Your task to perform on an android device: toggle notifications settings in the gmail app Image 0: 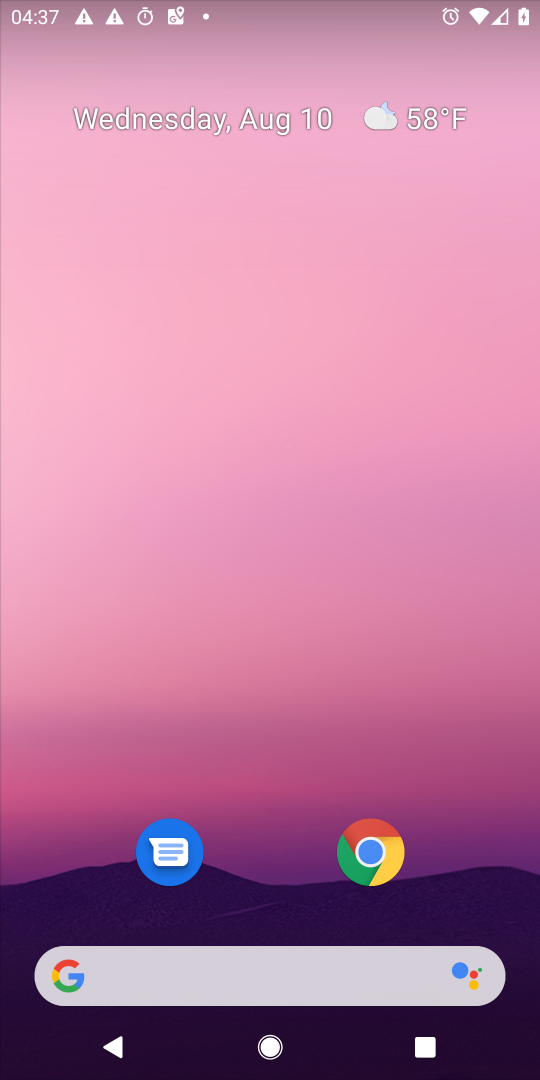
Step 0: drag from (247, 898) to (156, 493)
Your task to perform on an android device: toggle notifications settings in the gmail app Image 1: 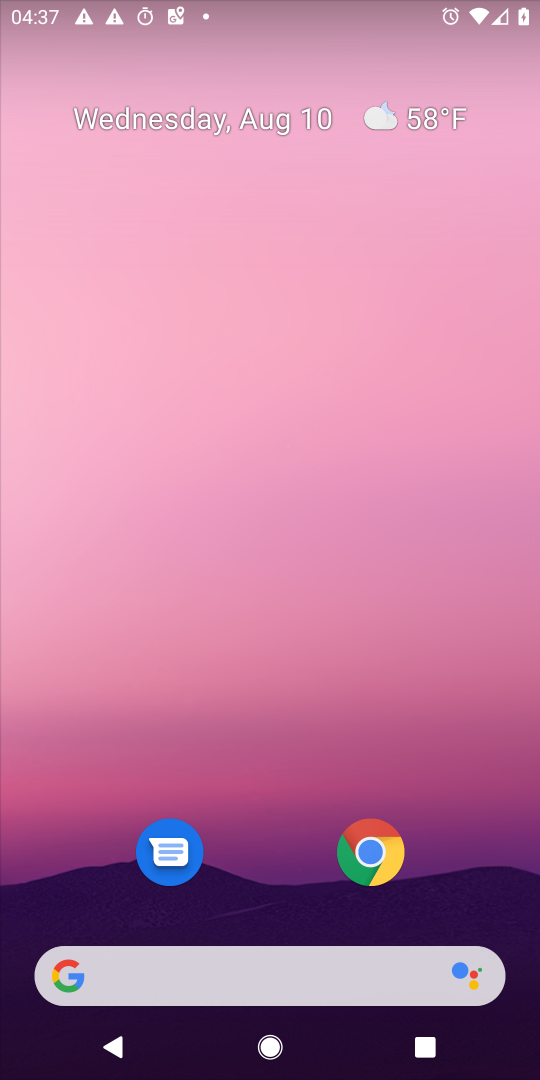
Step 1: drag from (277, 899) to (26, 0)
Your task to perform on an android device: toggle notifications settings in the gmail app Image 2: 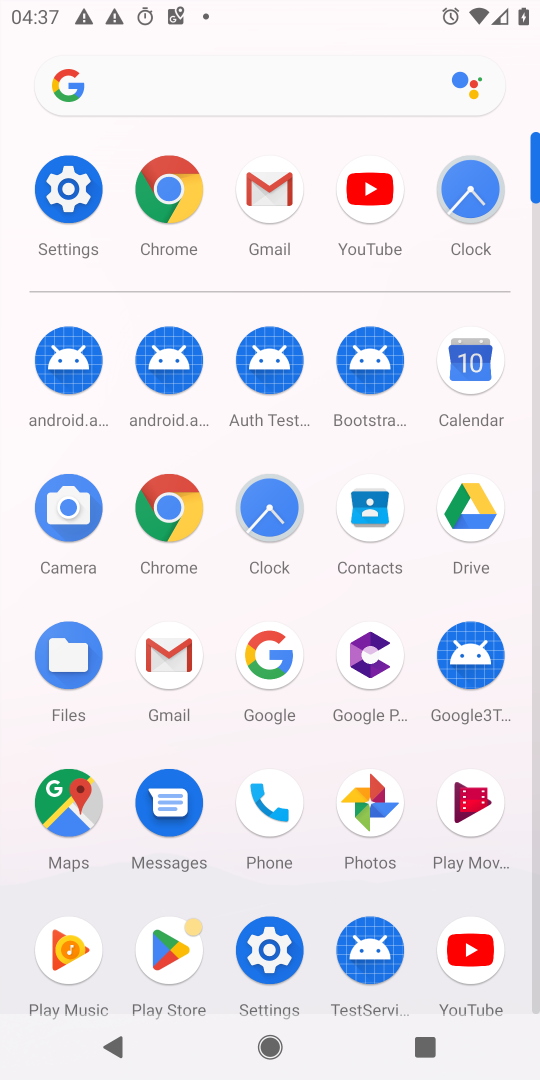
Step 2: click (176, 661)
Your task to perform on an android device: toggle notifications settings in the gmail app Image 3: 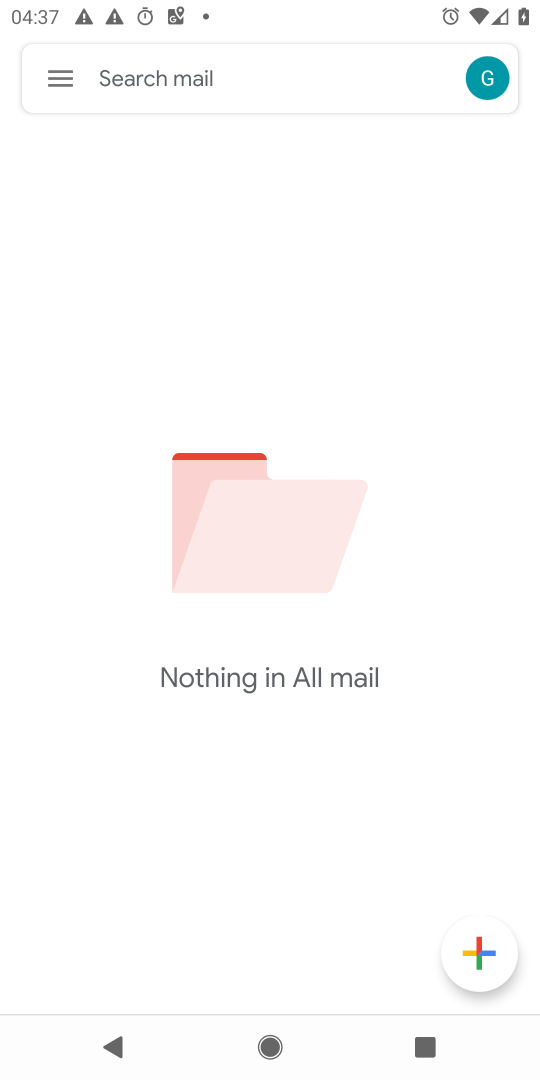
Step 3: click (39, 63)
Your task to perform on an android device: toggle notifications settings in the gmail app Image 4: 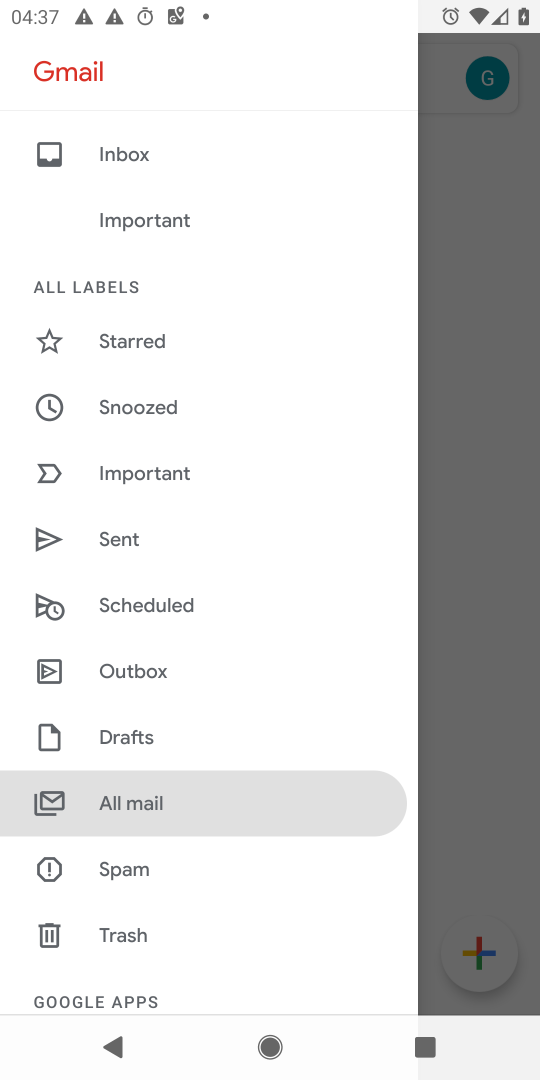
Step 4: drag from (214, 927) to (73, 31)
Your task to perform on an android device: toggle notifications settings in the gmail app Image 5: 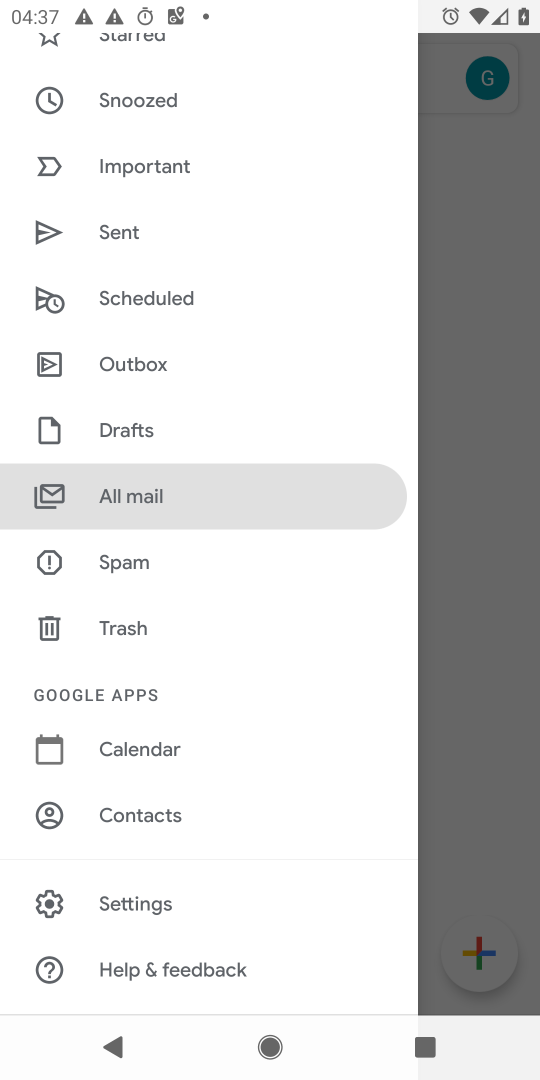
Step 5: click (148, 904)
Your task to perform on an android device: toggle notifications settings in the gmail app Image 6: 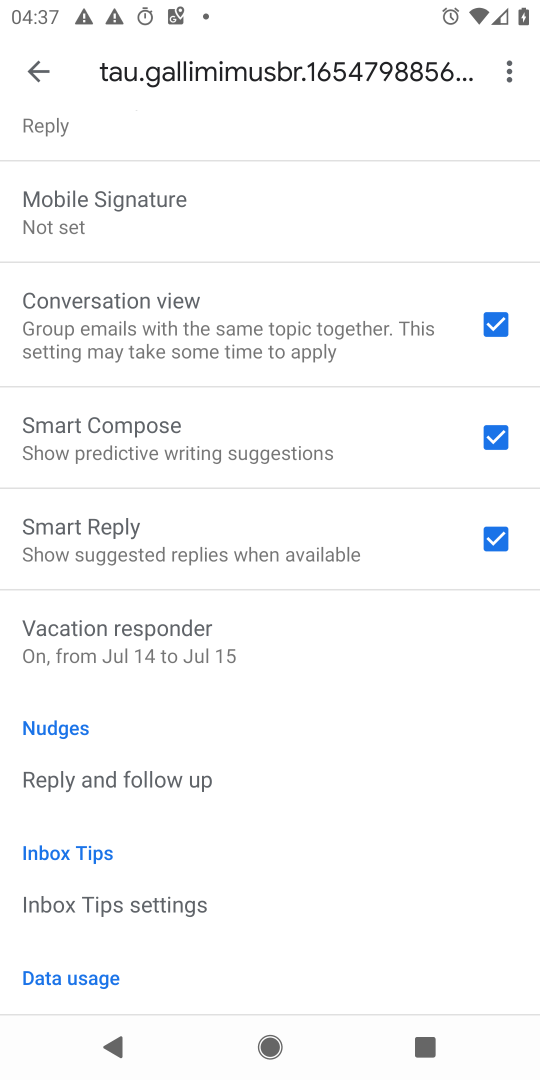
Step 6: drag from (282, 252) to (536, 916)
Your task to perform on an android device: toggle notifications settings in the gmail app Image 7: 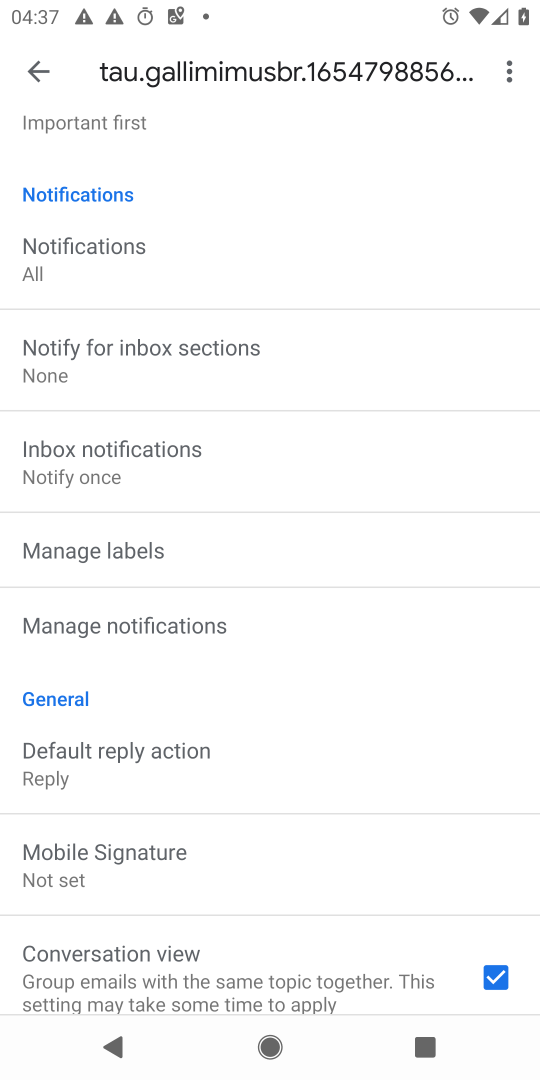
Step 7: click (211, 611)
Your task to perform on an android device: toggle notifications settings in the gmail app Image 8: 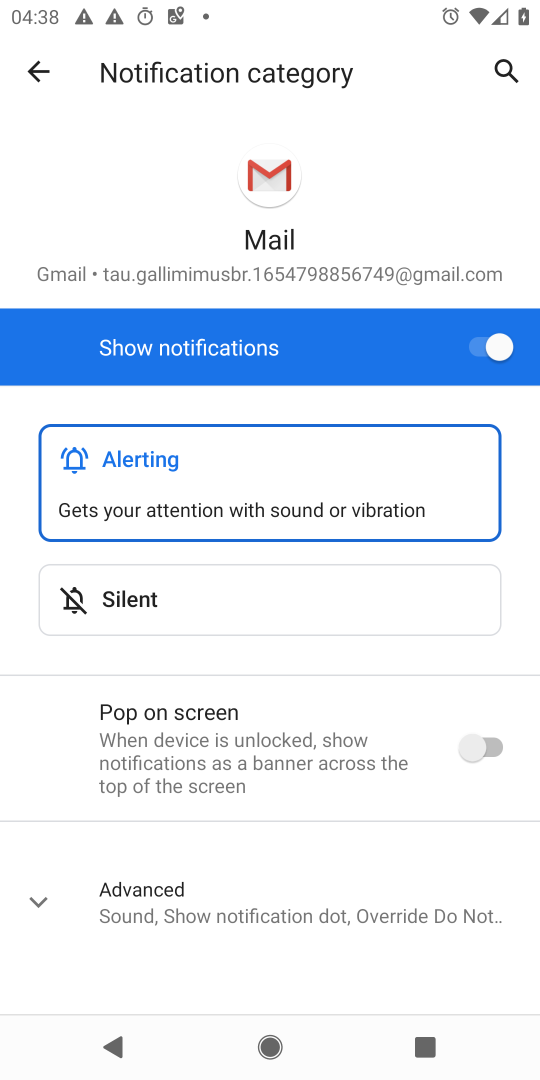
Step 8: click (506, 345)
Your task to perform on an android device: toggle notifications settings in the gmail app Image 9: 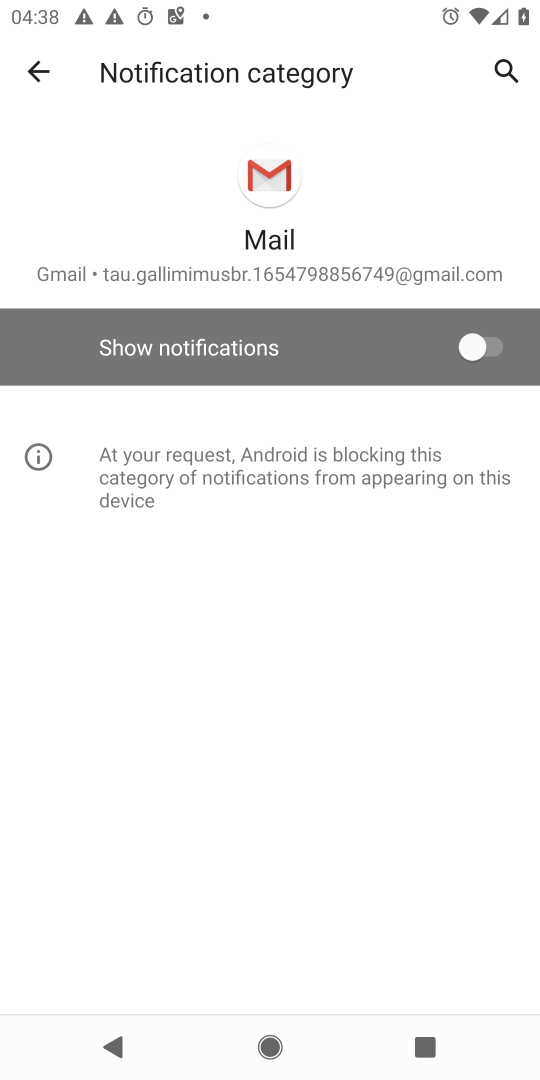
Step 9: task complete